Your task to perform on an android device: Open ESPN.com Image 0: 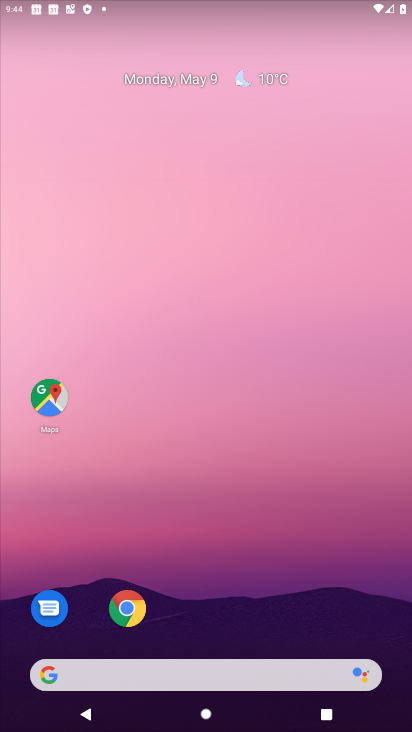
Step 0: drag from (262, 631) to (314, 147)
Your task to perform on an android device: Open ESPN.com Image 1: 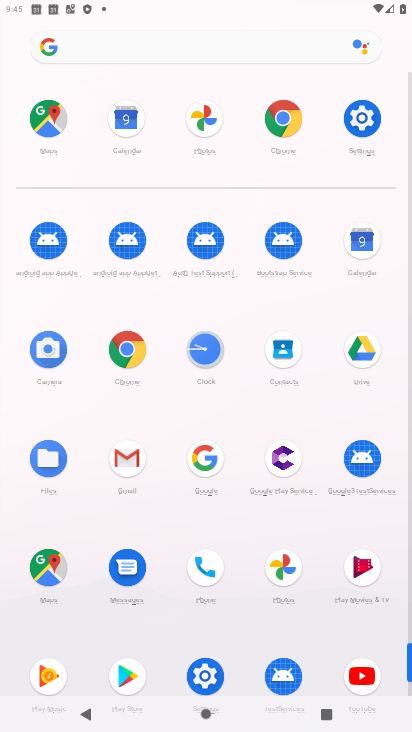
Step 1: click (292, 123)
Your task to perform on an android device: Open ESPN.com Image 2: 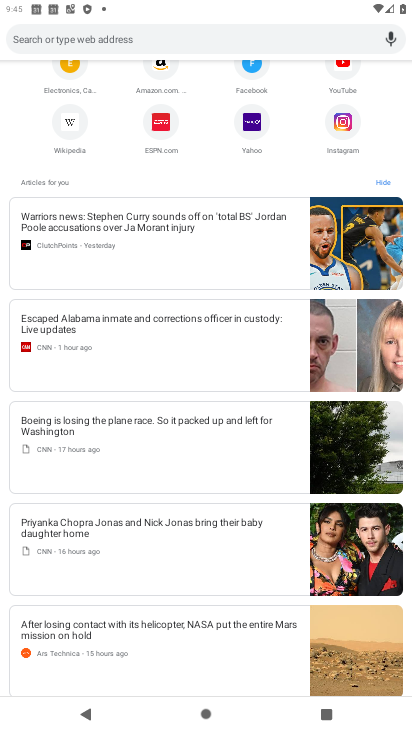
Step 2: drag from (188, 236) to (148, 537)
Your task to perform on an android device: Open ESPN.com Image 3: 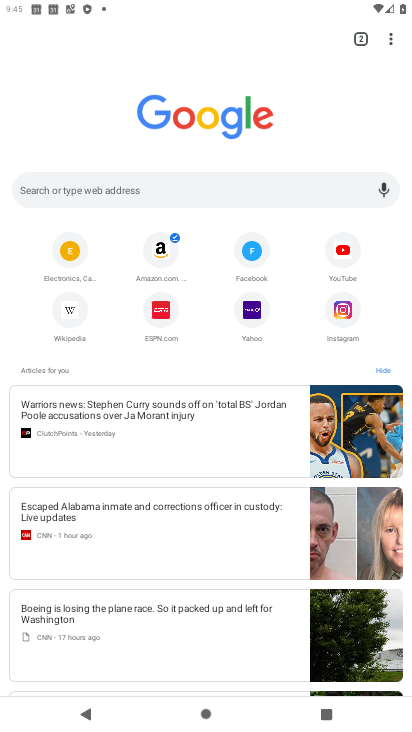
Step 3: click (160, 308)
Your task to perform on an android device: Open ESPN.com Image 4: 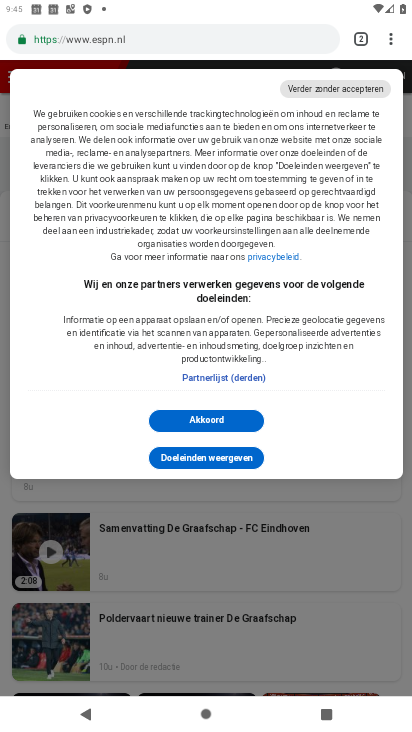
Step 4: task complete